Your task to perform on an android device: change notification settings in the gmail app Image 0: 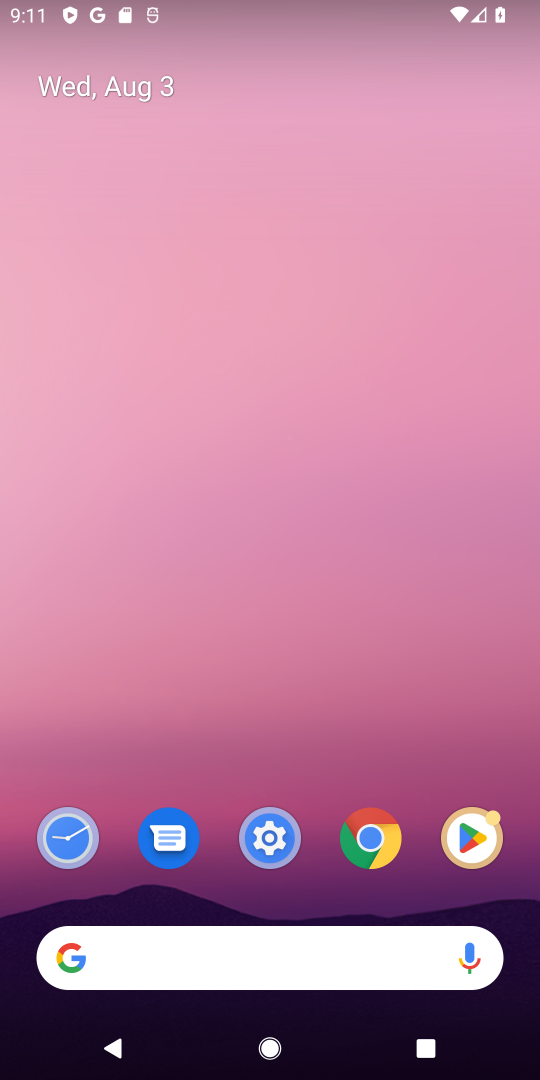
Step 0: drag from (410, 797) to (519, 196)
Your task to perform on an android device: change notification settings in the gmail app Image 1: 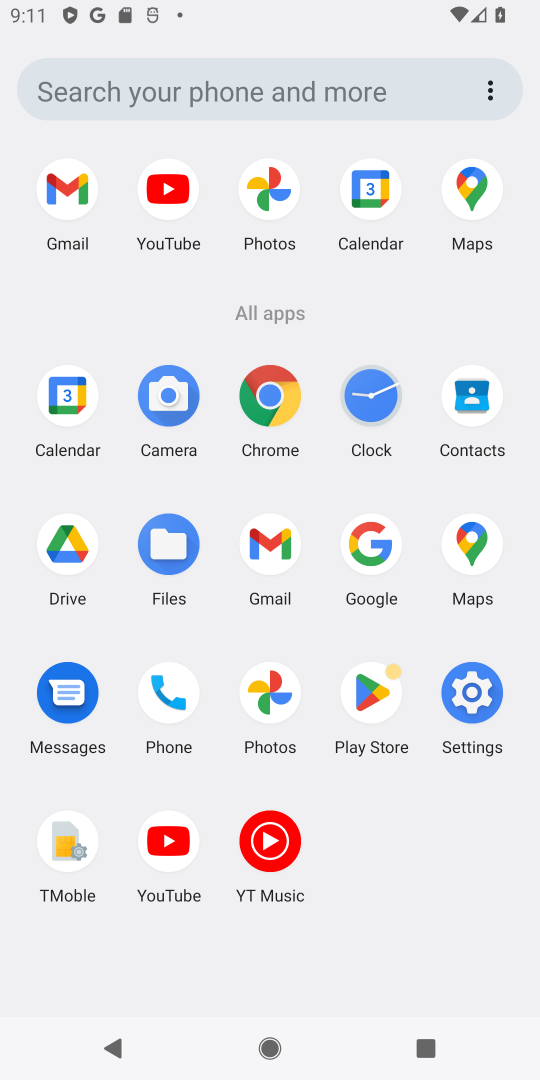
Step 1: click (277, 536)
Your task to perform on an android device: change notification settings in the gmail app Image 2: 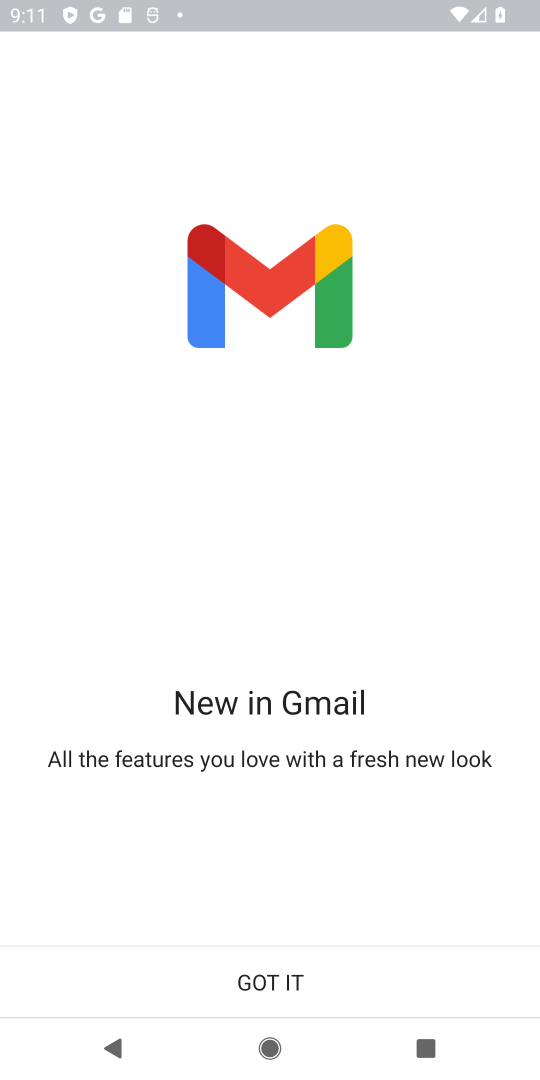
Step 2: click (278, 991)
Your task to perform on an android device: change notification settings in the gmail app Image 3: 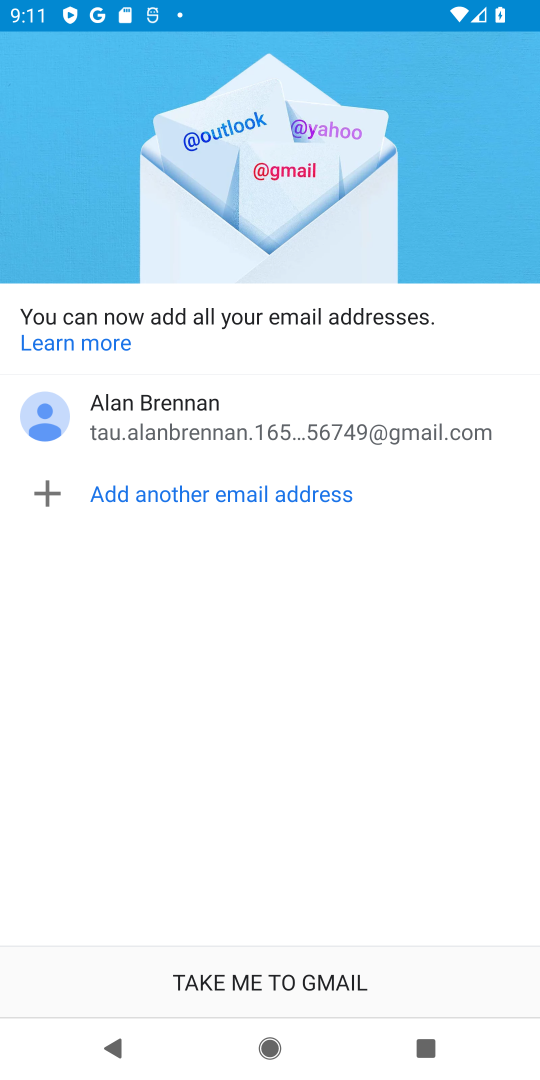
Step 3: click (278, 991)
Your task to perform on an android device: change notification settings in the gmail app Image 4: 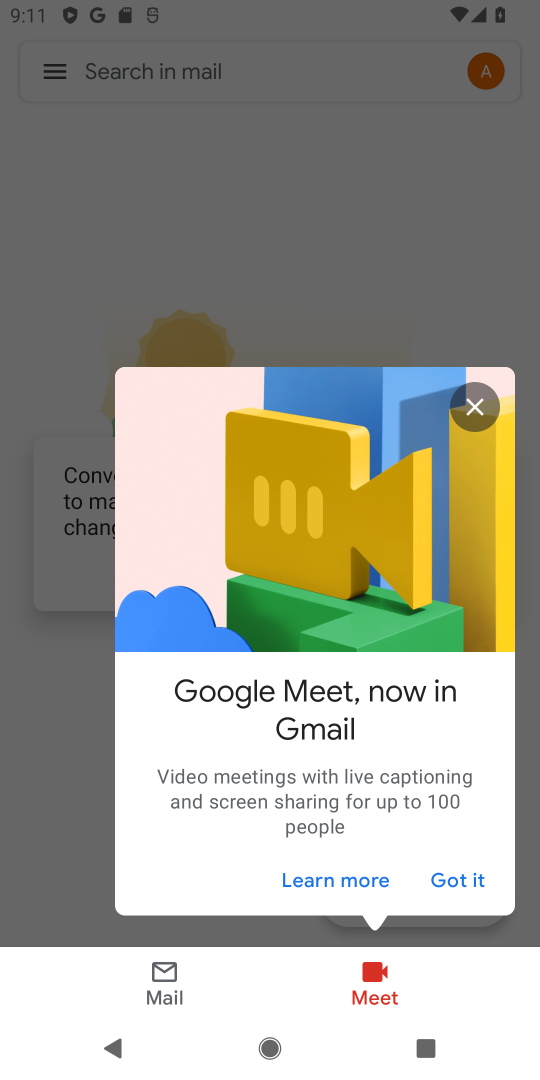
Step 4: click (475, 877)
Your task to perform on an android device: change notification settings in the gmail app Image 5: 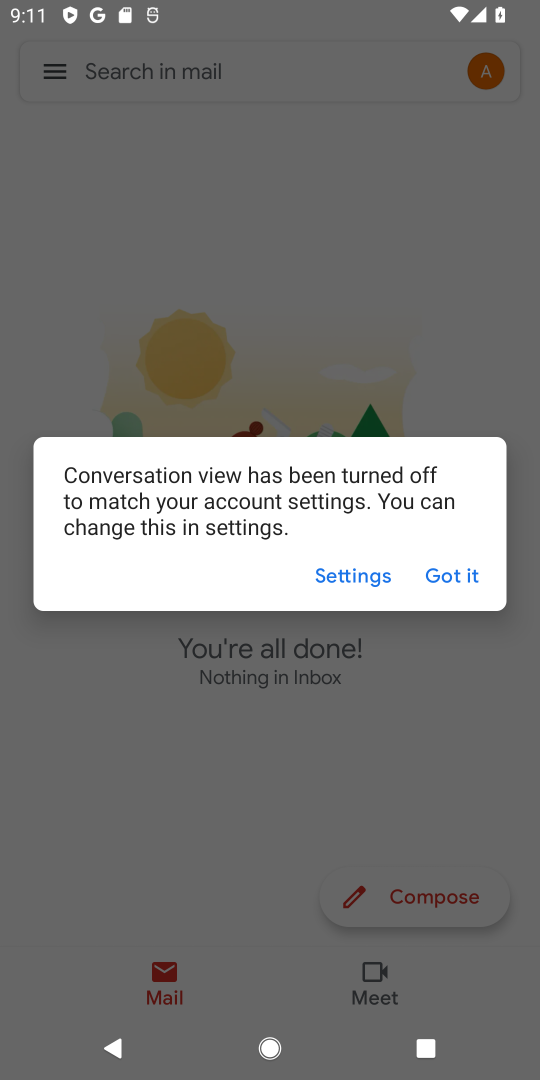
Step 5: click (480, 576)
Your task to perform on an android device: change notification settings in the gmail app Image 6: 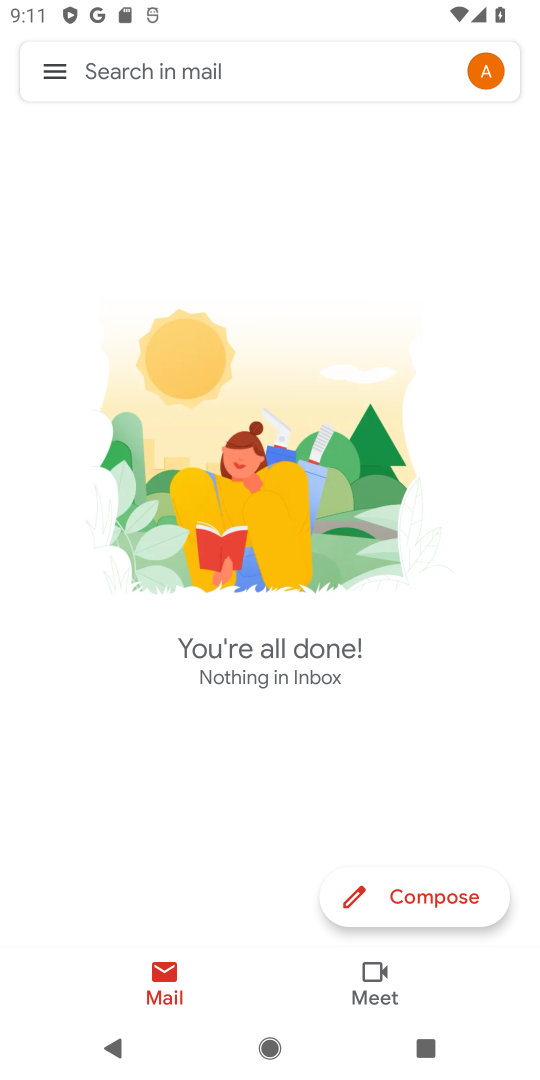
Step 6: click (63, 80)
Your task to perform on an android device: change notification settings in the gmail app Image 7: 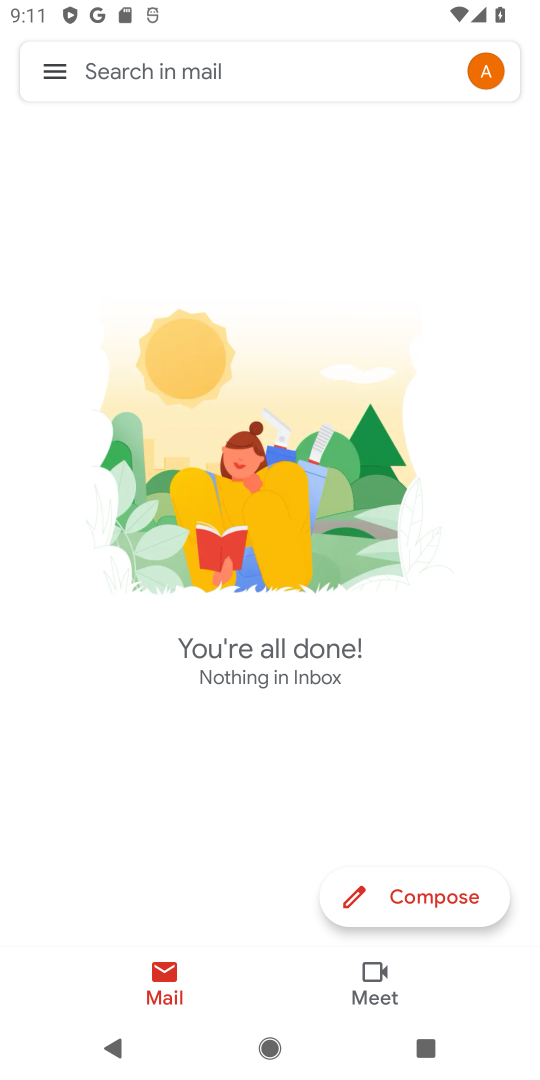
Step 7: click (52, 86)
Your task to perform on an android device: change notification settings in the gmail app Image 8: 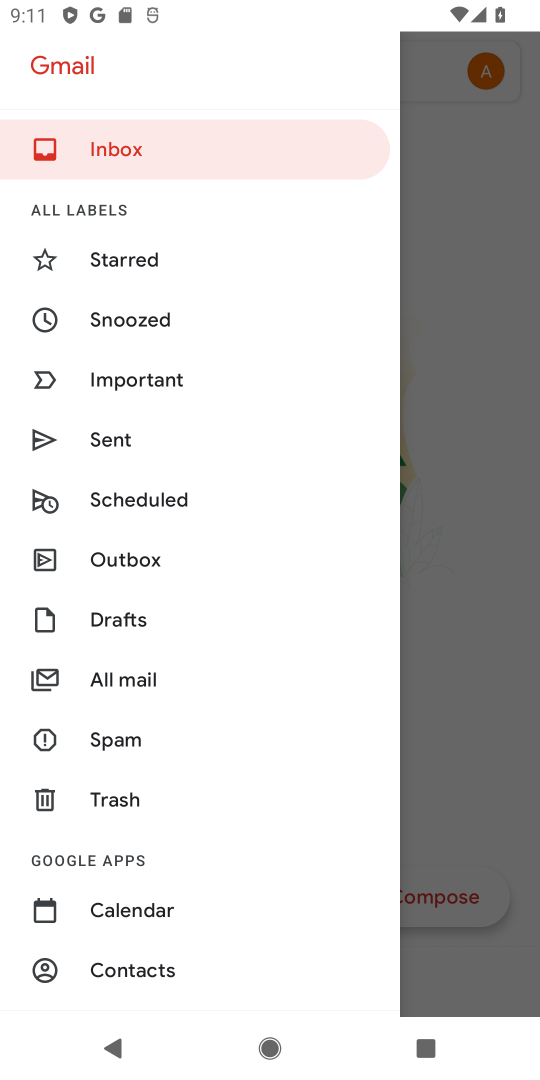
Step 8: drag from (214, 934) to (219, 295)
Your task to perform on an android device: change notification settings in the gmail app Image 9: 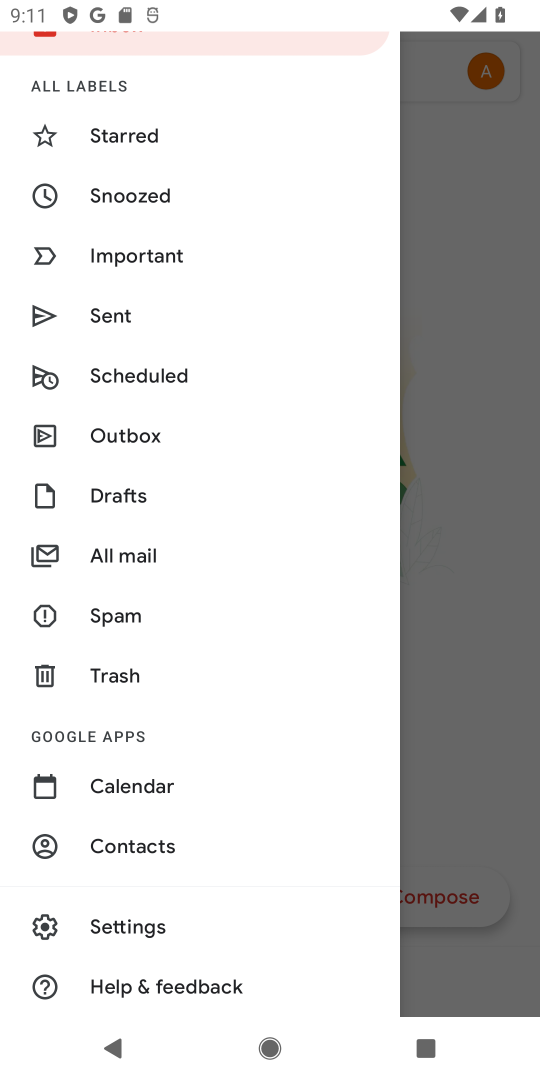
Step 9: click (159, 926)
Your task to perform on an android device: change notification settings in the gmail app Image 10: 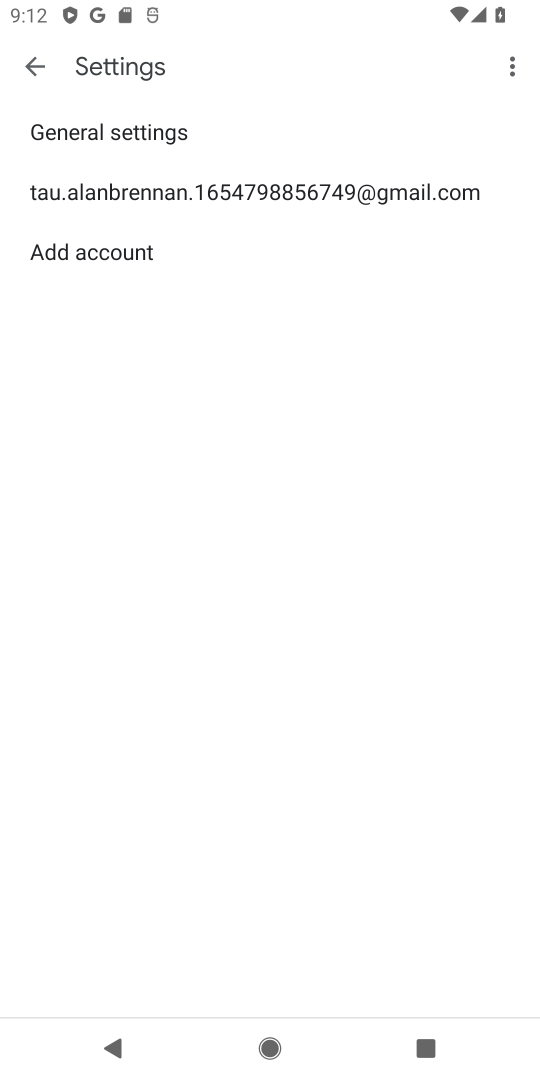
Step 10: click (352, 203)
Your task to perform on an android device: change notification settings in the gmail app Image 11: 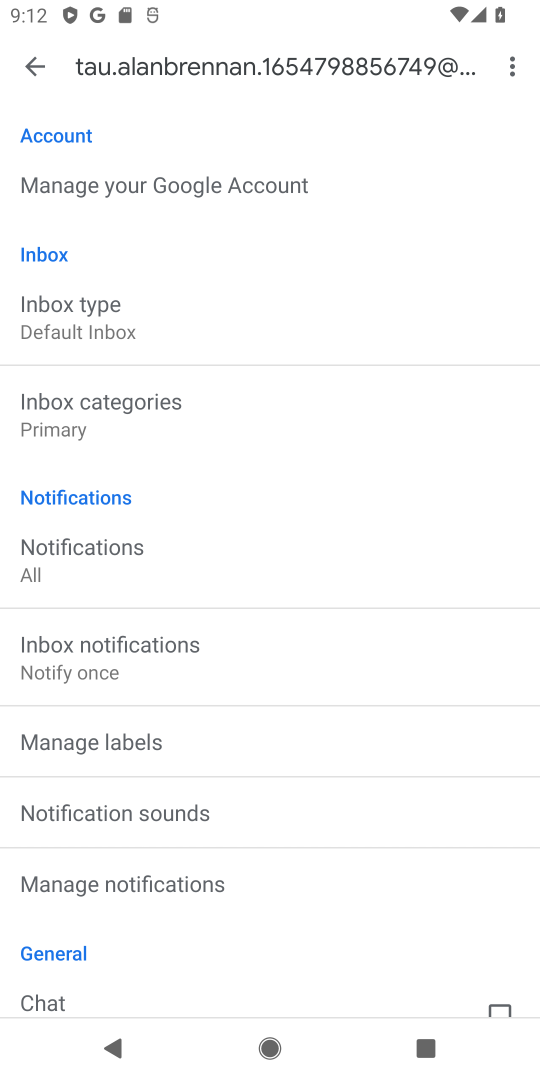
Step 11: click (185, 885)
Your task to perform on an android device: change notification settings in the gmail app Image 12: 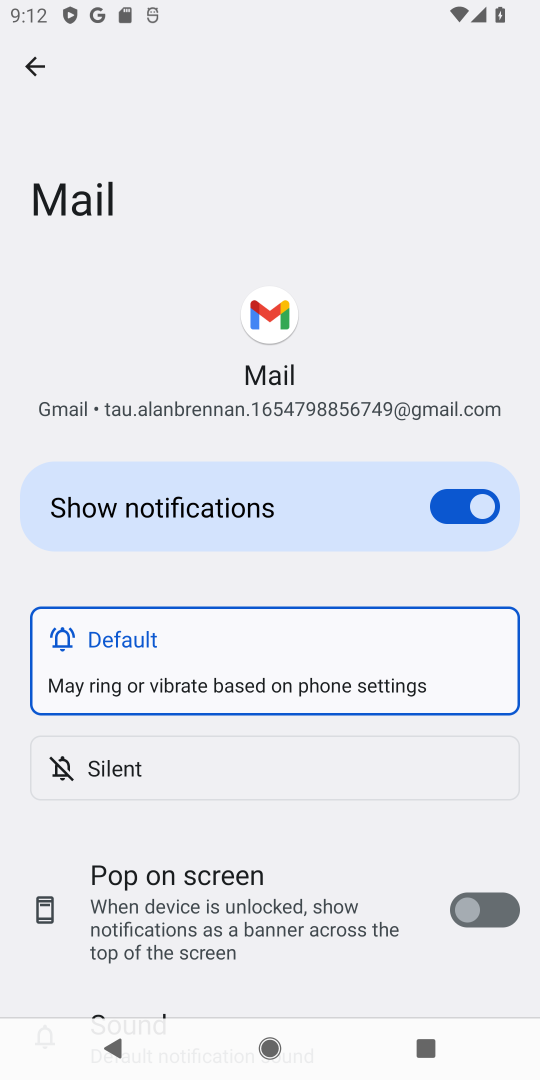
Step 12: drag from (327, 799) to (350, 276)
Your task to perform on an android device: change notification settings in the gmail app Image 13: 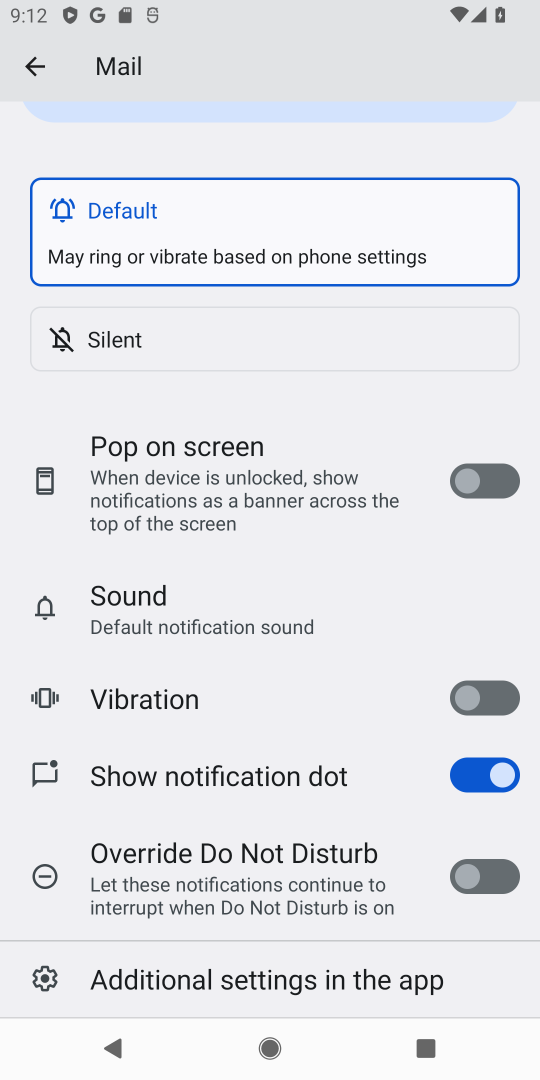
Step 13: click (493, 493)
Your task to perform on an android device: change notification settings in the gmail app Image 14: 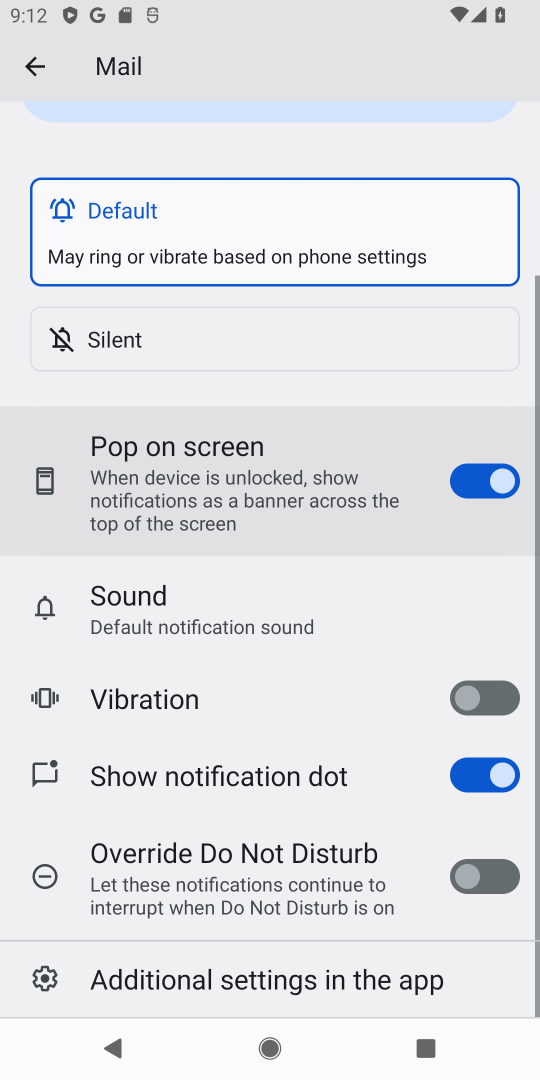
Step 14: click (490, 697)
Your task to perform on an android device: change notification settings in the gmail app Image 15: 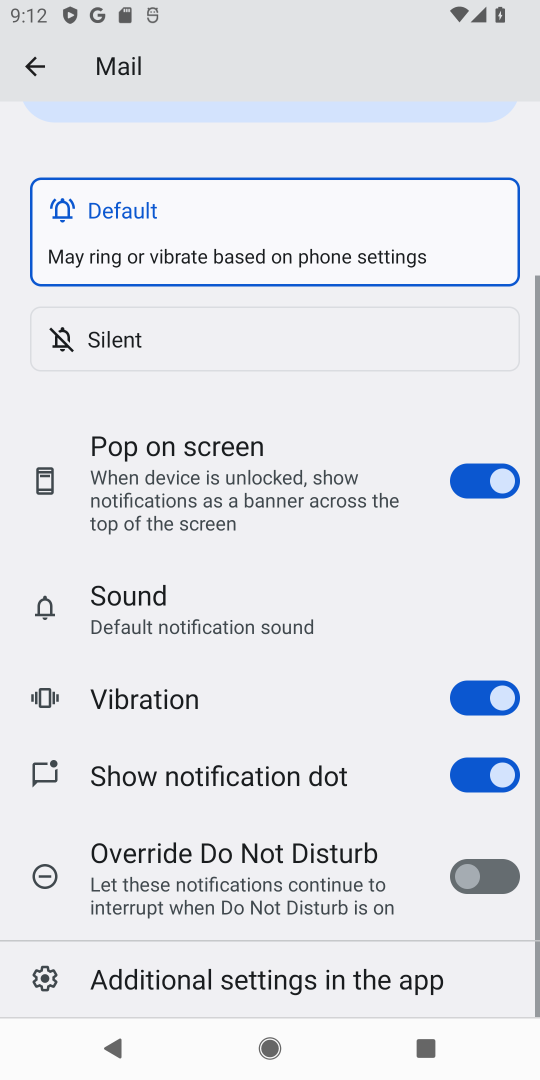
Step 15: click (490, 878)
Your task to perform on an android device: change notification settings in the gmail app Image 16: 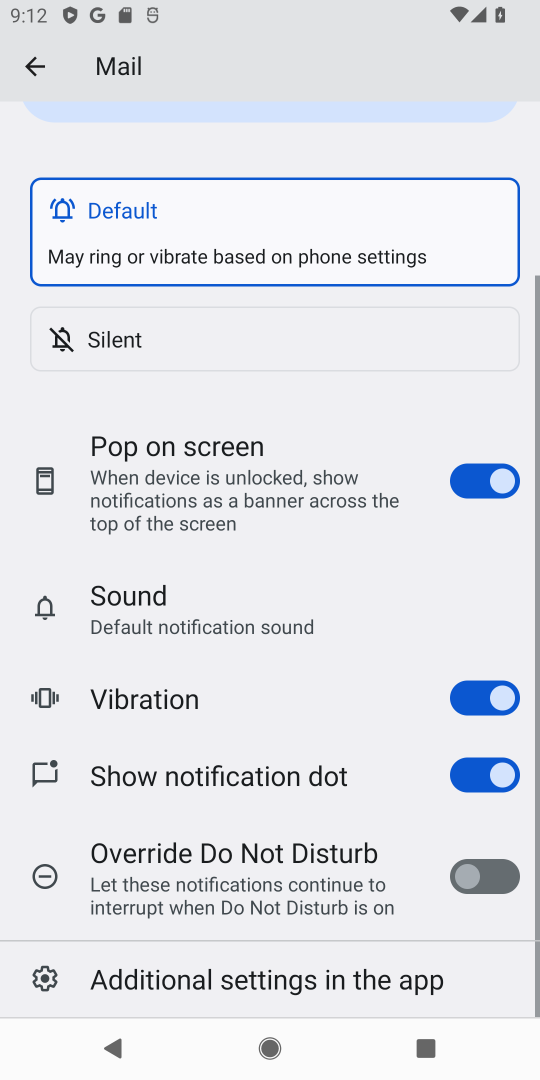
Step 16: click (490, 878)
Your task to perform on an android device: change notification settings in the gmail app Image 17: 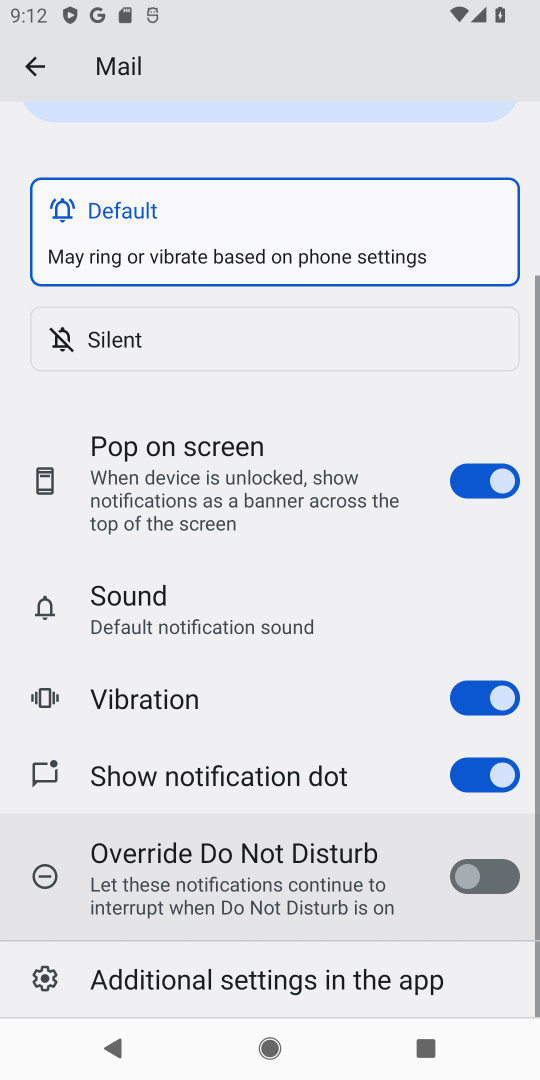
Step 17: click (473, 774)
Your task to perform on an android device: change notification settings in the gmail app Image 18: 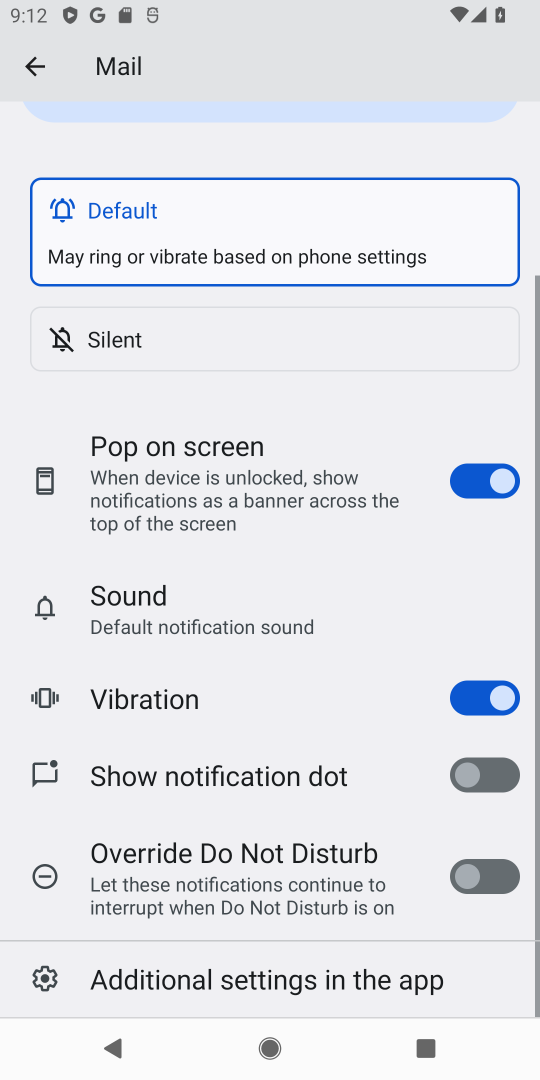
Step 18: task complete